Your task to perform on an android device: What's on my calendar today? Image 0: 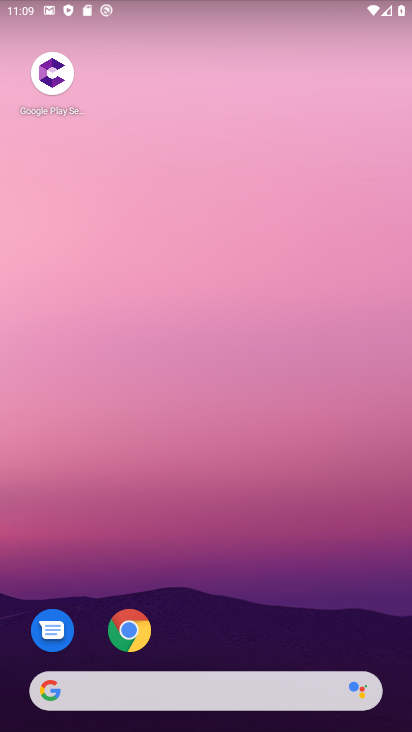
Step 0: drag from (199, 644) to (155, 243)
Your task to perform on an android device: What's on my calendar today? Image 1: 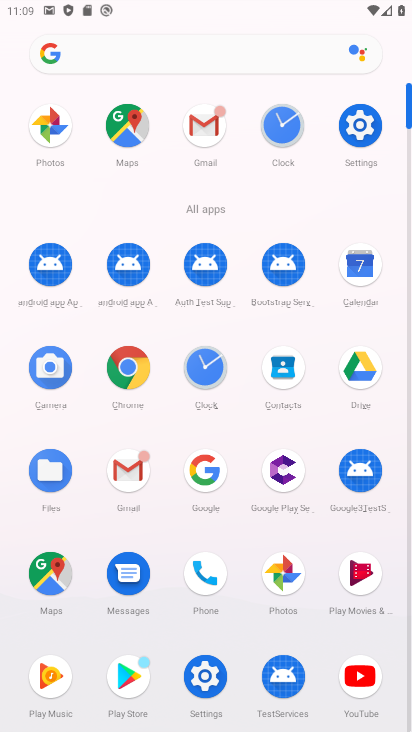
Step 1: click (340, 287)
Your task to perform on an android device: What's on my calendar today? Image 2: 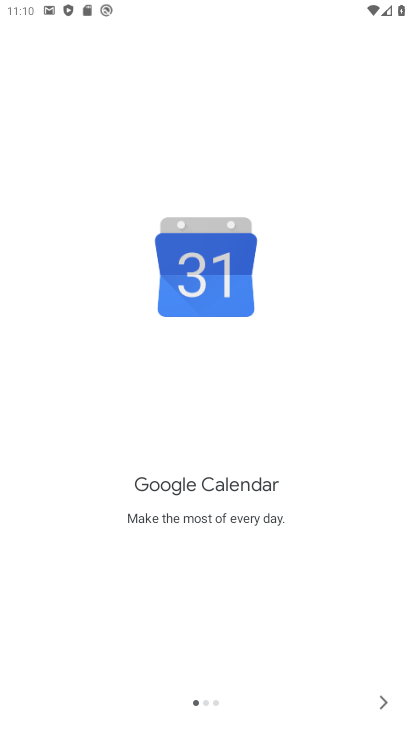
Step 2: click (375, 694)
Your task to perform on an android device: What's on my calendar today? Image 3: 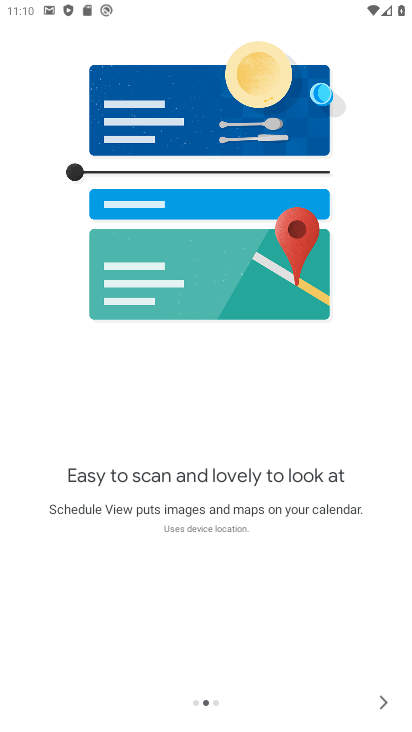
Step 3: click (383, 698)
Your task to perform on an android device: What's on my calendar today? Image 4: 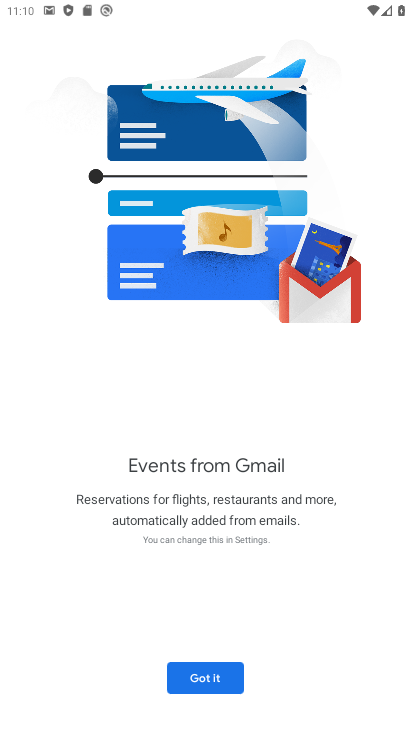
Step 4: click (212, 679)
Your task to perform on an android device: What's on my calendar today? Image 5: 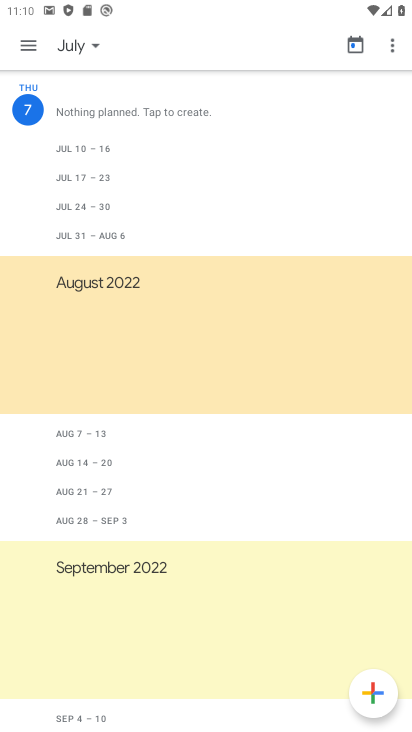
Step 5: click (83, 52)
Your task to perform on an android device: What's on my calendar today? Image 6: 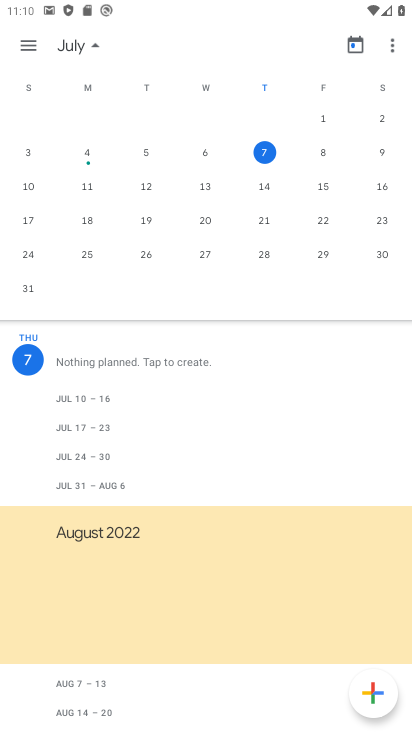
Step 6: task complete